Your task to perform on an android device: What's the weather? Image 0: 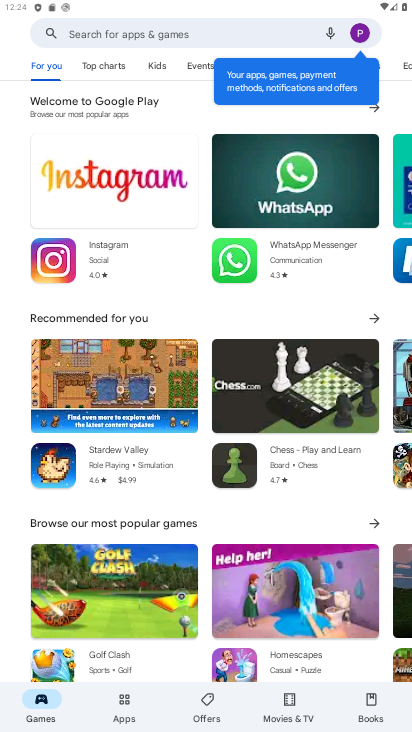
Step 0: press home button
Your task to perform on an android device: What's the weather? Image 1: 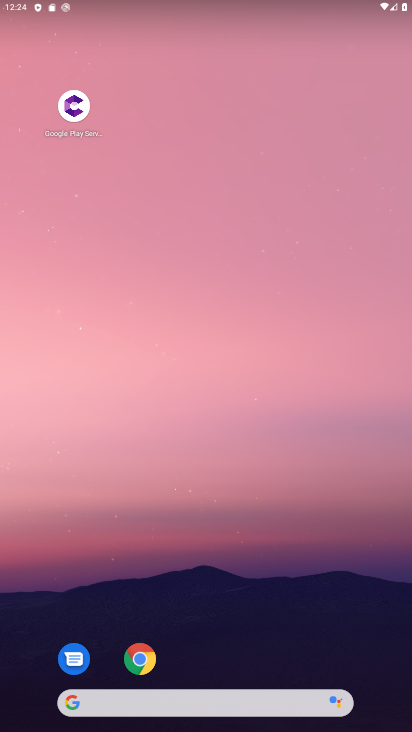
Step 1: drag from (216, 678) to (296, 181)
Your task to perform on an android device: What's the weather? Image 2: 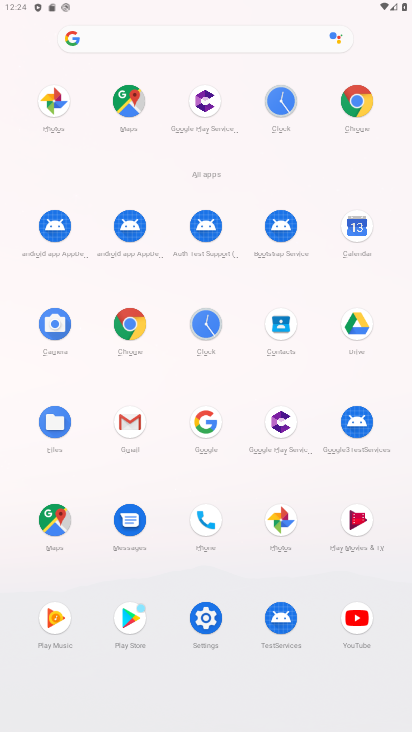
Step 2: click (365, 100)
Your task to perform on an android device: What's the weather? Image 3: 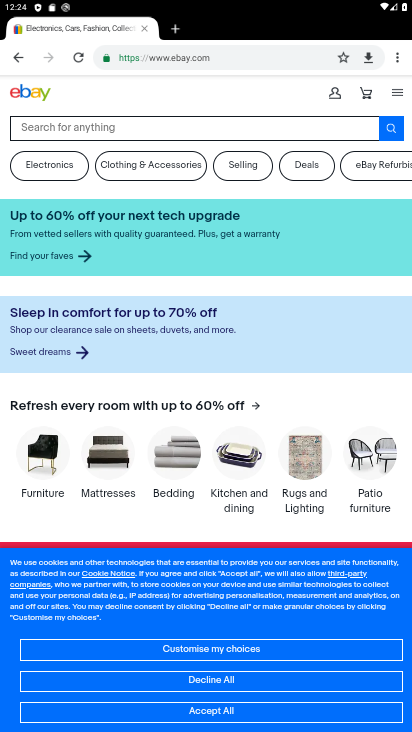
Step 3: click (151, 56)
Your task to perform on an android device: What's the weather? Image 4: 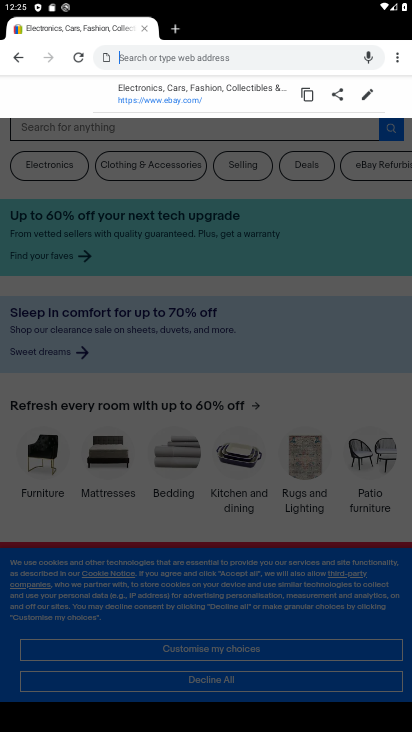
Step 4: type "weather?"
Your task to perform on an android device: What's the weather? Image 5: 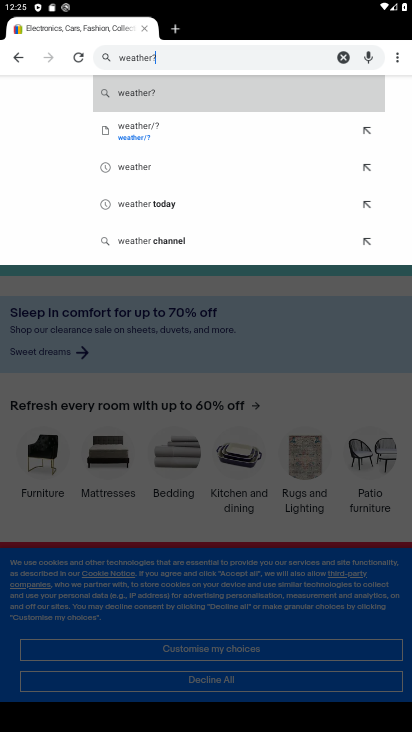
Step 5: type ""
Your task to perform on an android device: What's the weather? Image 6: 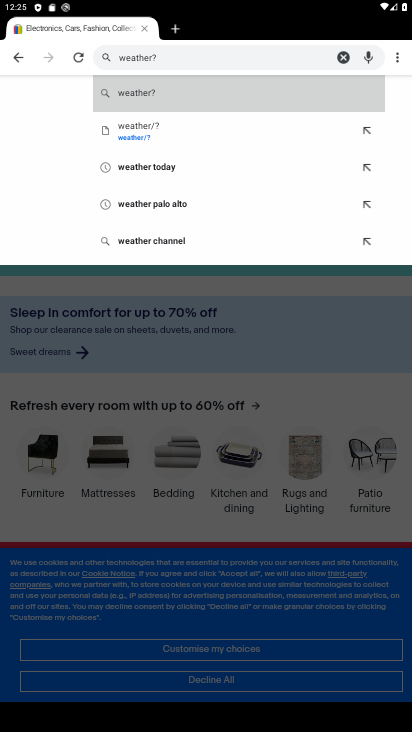
Step 6: click (137, 130)
Your task to perform on an android device: What's the weather? Image 7: 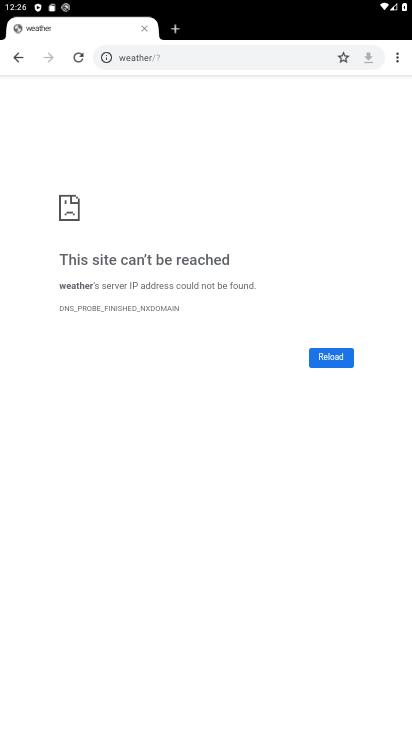
Step 7: drag from (360, 23) to (170, 314)
Your task to perform on an android device: What's the weather? Image 8: 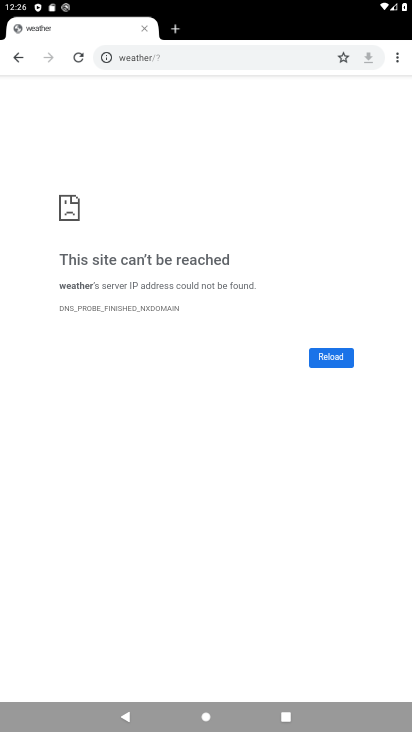
Step 8: click (333, 356)
Your task to perform on an android device: What's the weather? Image 9: 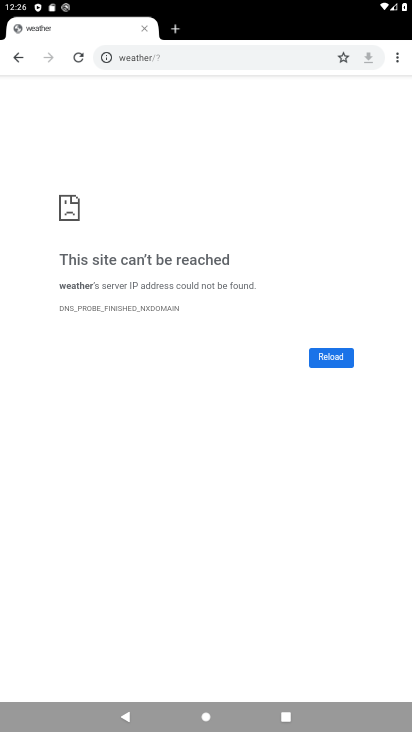
Step 9: click (327, 354)
Your task to perform on an android device: What's the weather? Image 10: 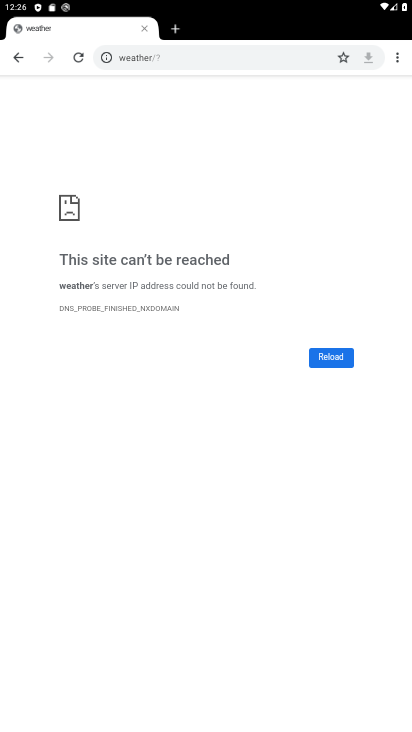
Step 10: click (15, 64)
Your task to perform on an android device: What's the weather? Image 11: 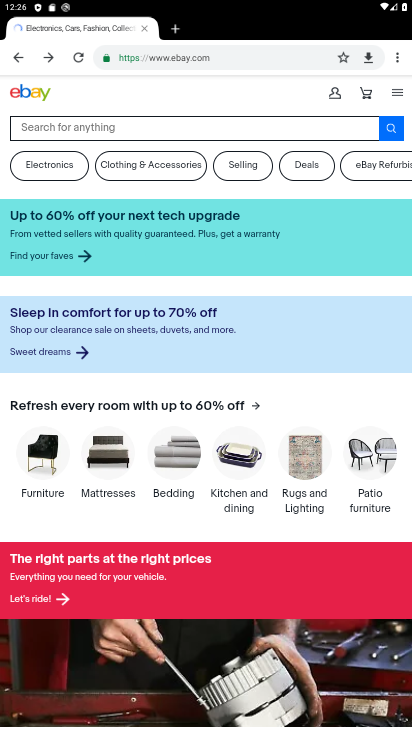
Step 11: click (203, 54)
Your task to perform on an android device: What's the weather? Image 12: 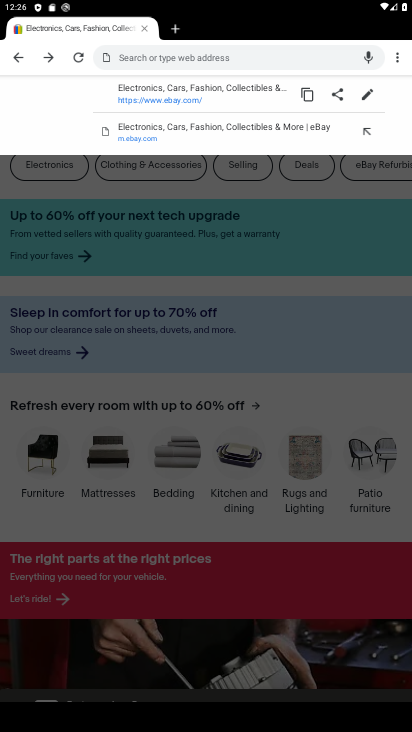
Step 12: type "What's the weather?"
Your task to perform on an android device: What's the weather? Image 13: 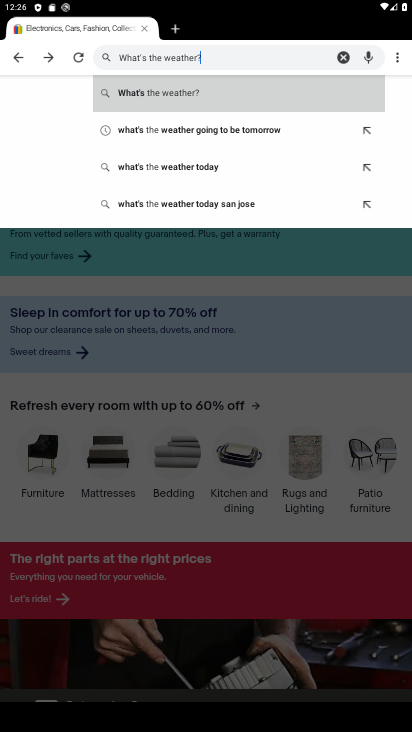
Step 13: type ""
Your task to perform on an android device: What's the weather? Image 14: 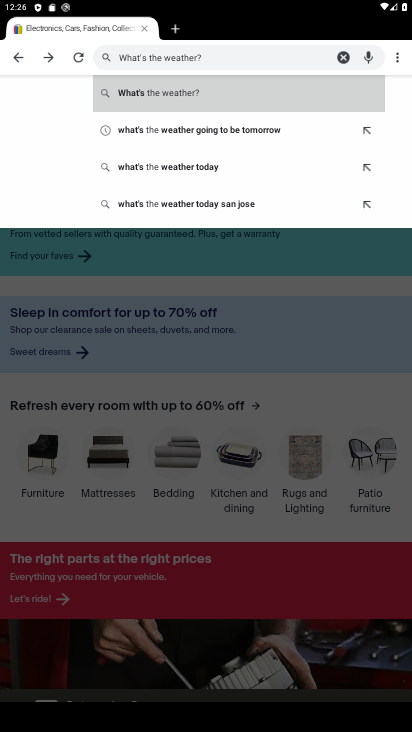
Step 14: click (161, 97)
Your task to perform on an android device: What's the weather? Image 15: 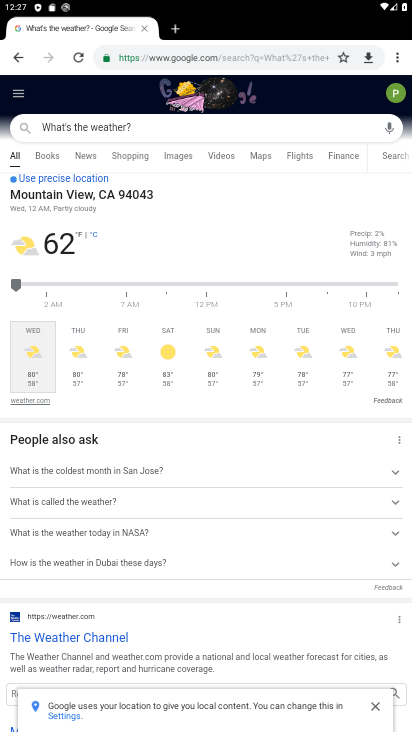
Step 15: task complete